Your task to perform on an android device: Open eBay Image 0: 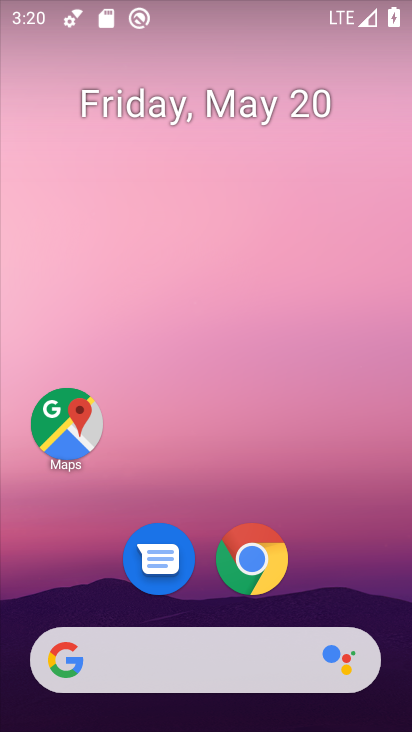
Step 0: click (214, 672)
Your task to perform on an android device: Open eBay Image 1: 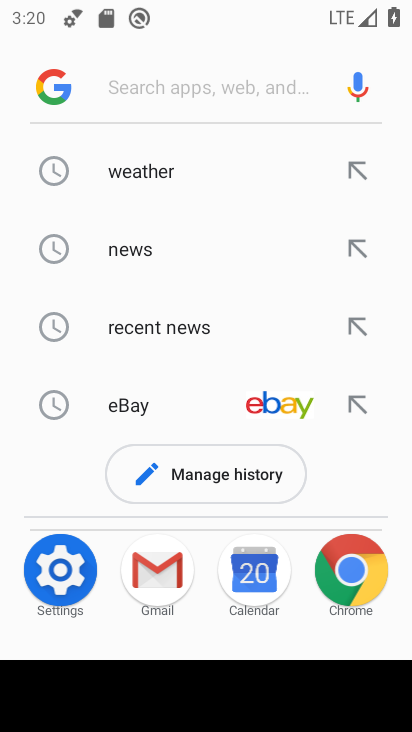
Step 1: click (131, 404)
Your task to perform on an android device: Open eBay Image 2: 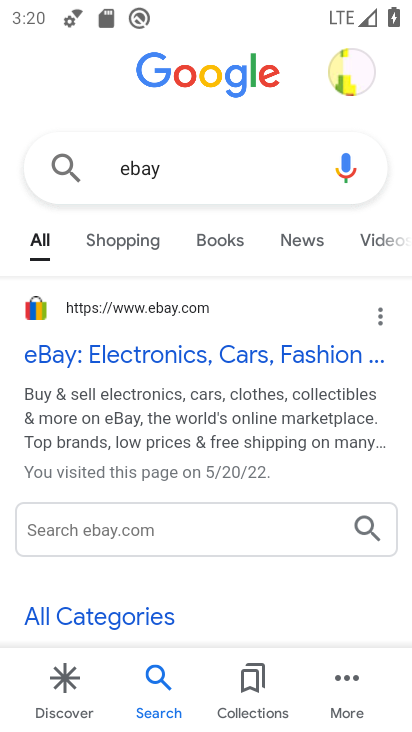
Step 2: click (62, 355)
Your task to perform on an android device: Open eBay Image 3: 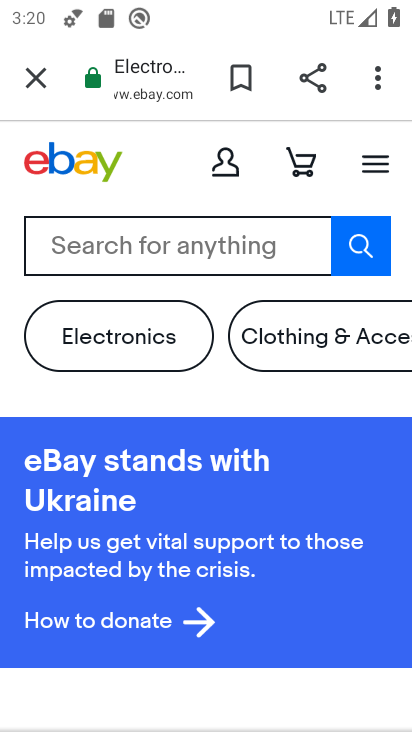
Step 3: task complete